Your task to perform on an android device: Open my contact list Image 0: 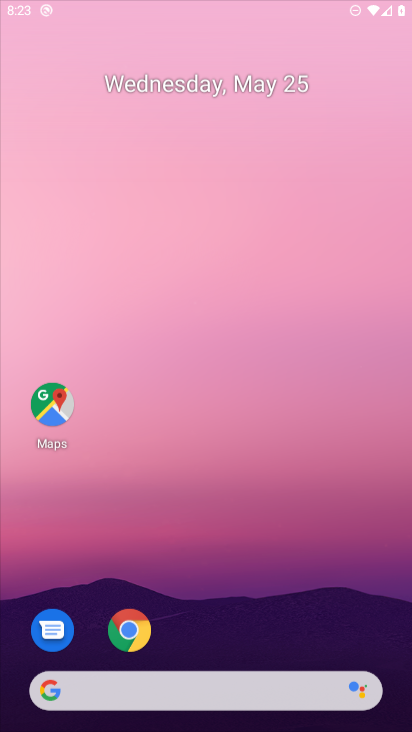
Step 0: click (236, 367)
Your task to perform on an android device: Open my contact list Image 1: 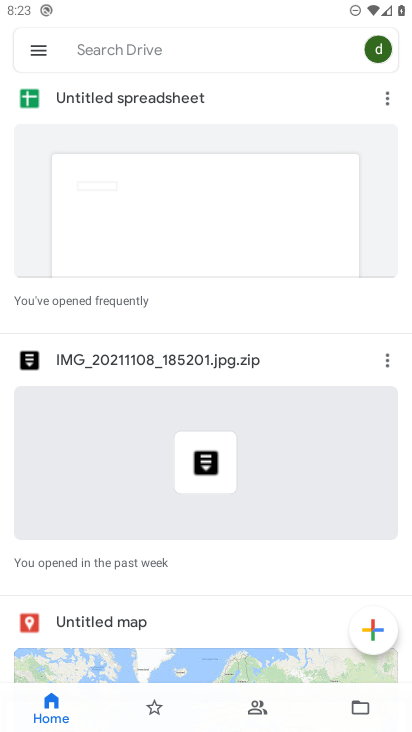
Step 1: press home button
Your task to perform on an android device: Open my contact list Image 2: 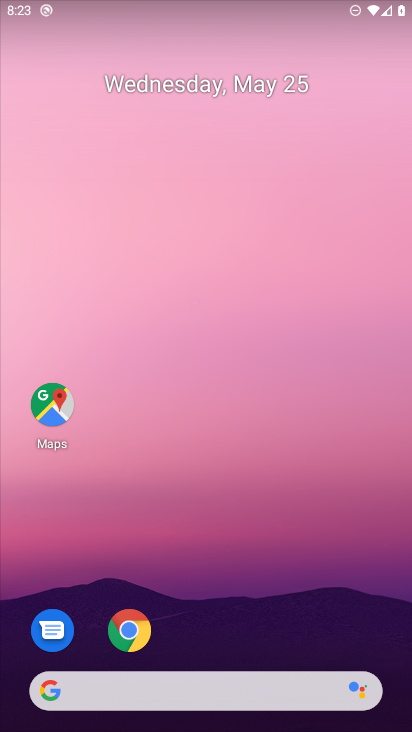
Step 2: drag from (200, 673) to (249, 228)
Your task to perform on an android device: Open my contact list Image 3: 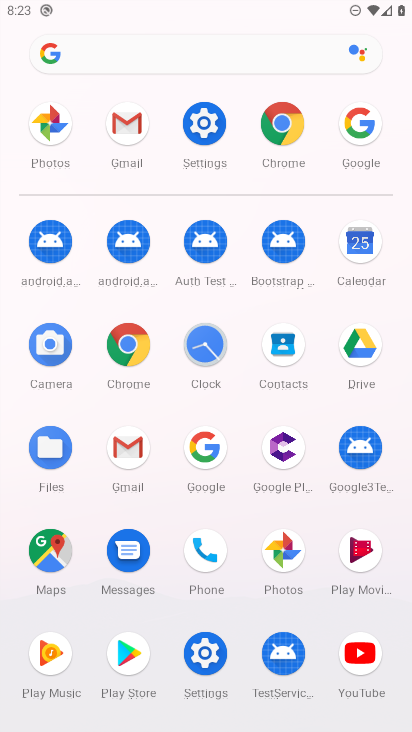
Step 3: click (269, 346)
Your task to perform on an android device: Open my contact list Image 4: 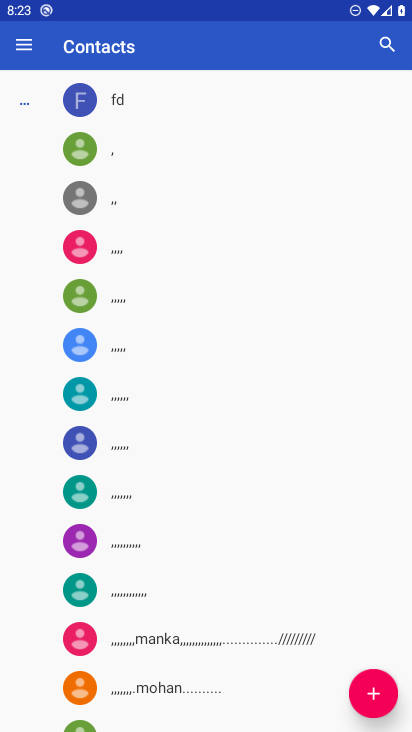
Step 4: task complete